Your task to perform on an android device: turn notification dots off Image 0: 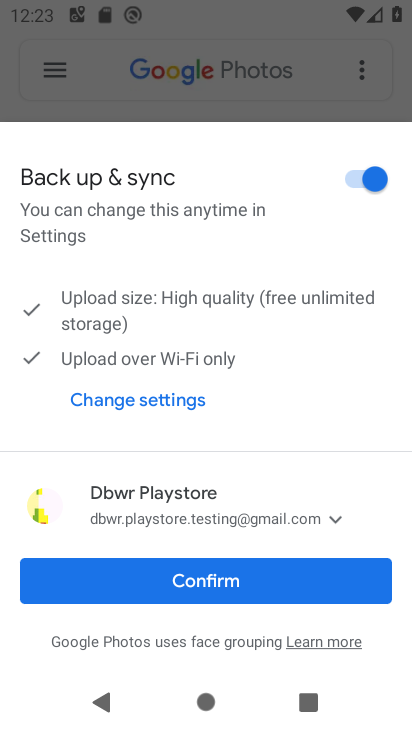
Step 0: press home button
Your task to perform on an android device: turn notification dots off Image 1: 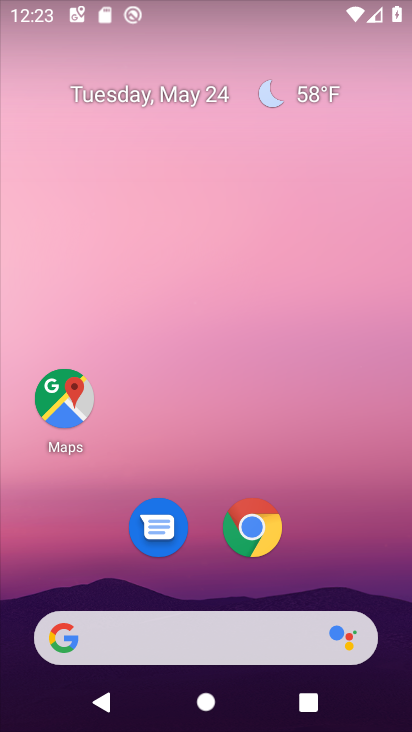
Step 1: drag from (402, 607) to (290, 102)
Your task to perform on an android device: turn notification dots off Image 2: 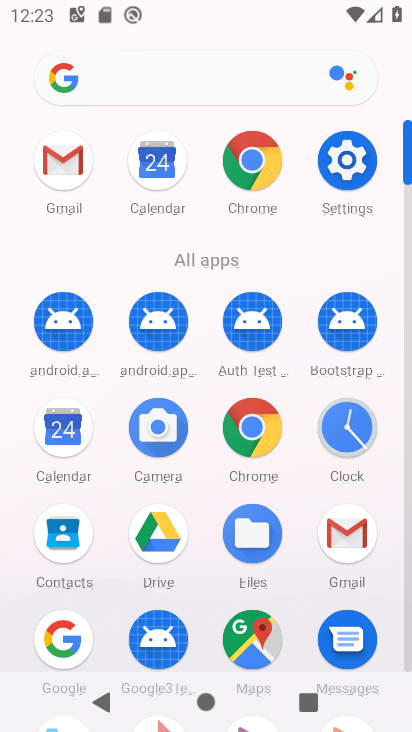
Step 2: click (338, 159)
Your task to perform on an android device: turn notification dots off Image 3: 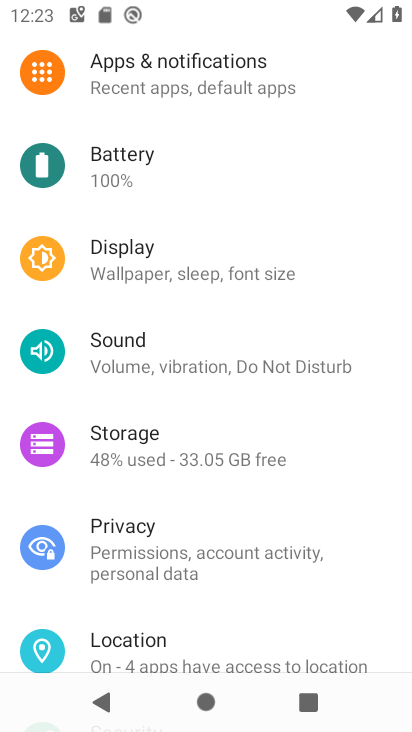
Step 3: click (247, 82)
Your task to perform on an android device: turn notification dots off Image 4: 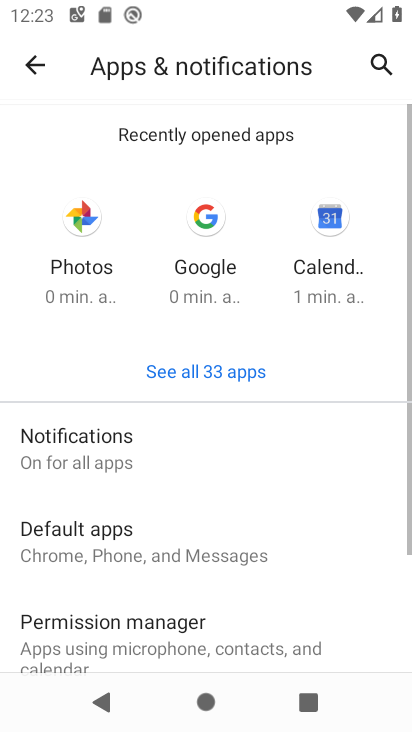
Step 4: click (269, 445)
Your task to perform on an android device: turn notification dots off Image 5: 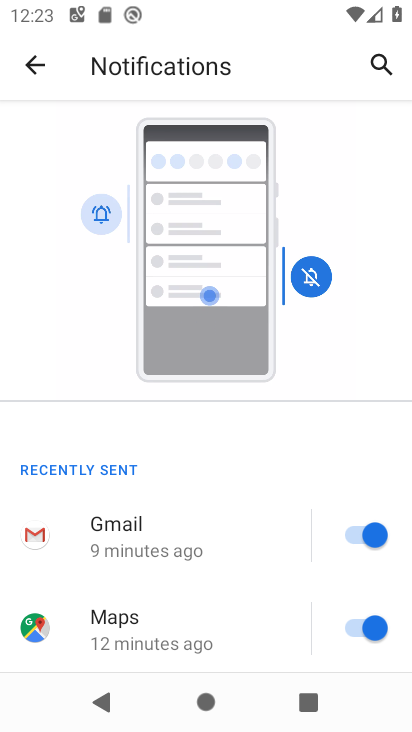
Step 5: drag from (301, 647) to (272, 231)
Your task to perform on an android device: turn notification dots off Image 6: 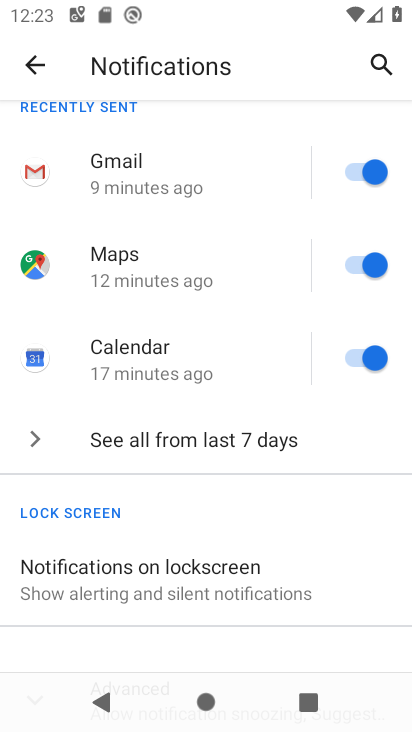
Step 6: drag from (286, 568) to (254, 209)
Your task to perform on an android device: turn notification dots off Image 7: 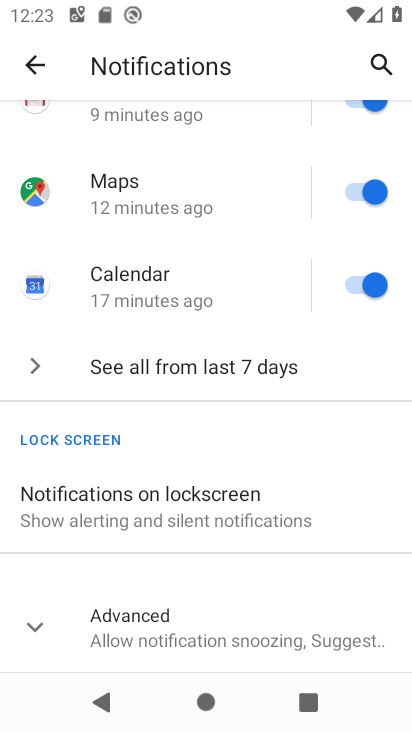
Step 7: click (303, 623)
Your task to perform on an android device: turn notification dots off Image 8: 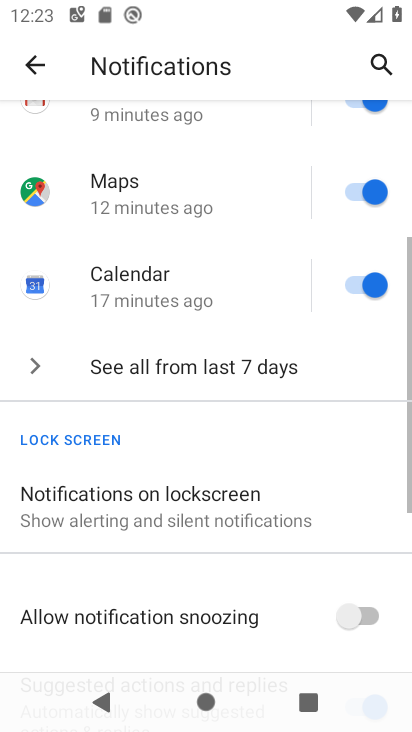
Step 8: drag from (302, 574) to (273, 92)
Your task to perform on an android device: turn notification dots off Image 9: 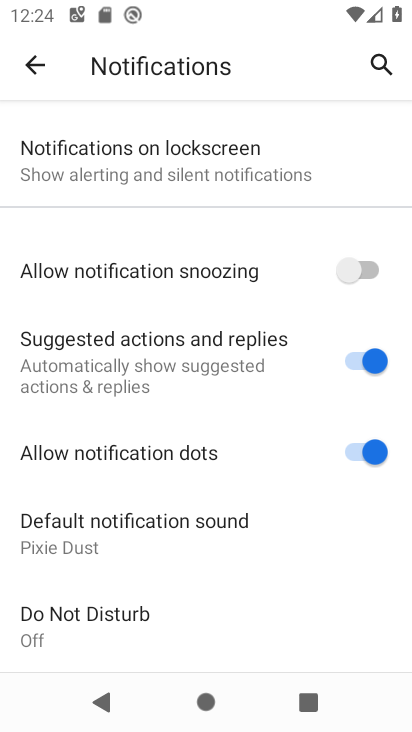
Step 9: click (372, 461)
Your task to perform on an android device: turn notification dots off Image 10: 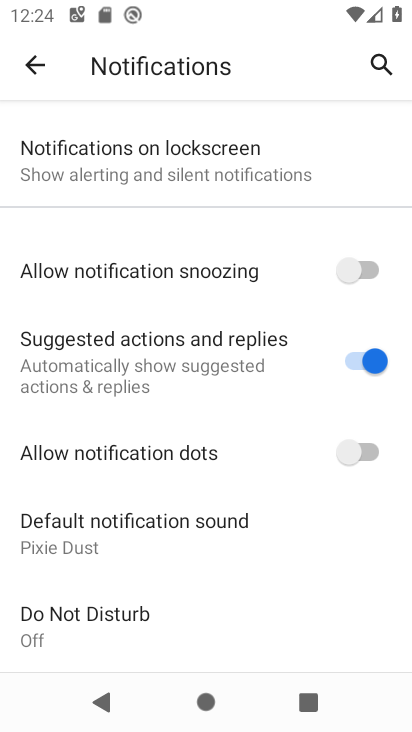
Step 10: task complete